Your task to perform on an android device: Open calendar and show me the second week of next month Image 0: 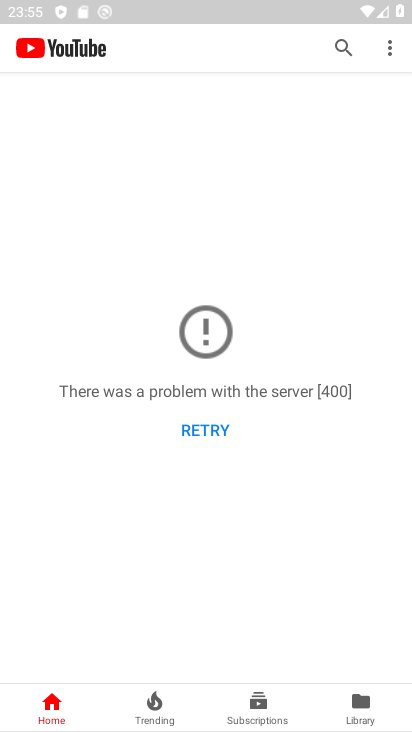
Step 0: press home button
Your task to perform on an android device: Open calendar and show me the second week of next month Image 1: 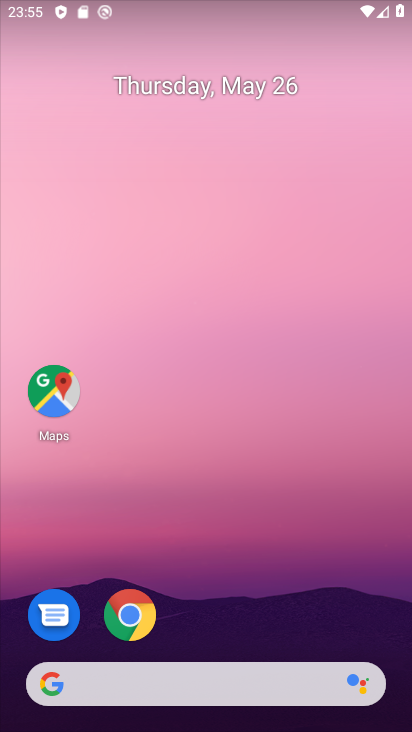
Step 1: drag from (324, 633) to (316, 190)
Your task to perform on an android device: Open calendar and show me the second week of next month Image 2: 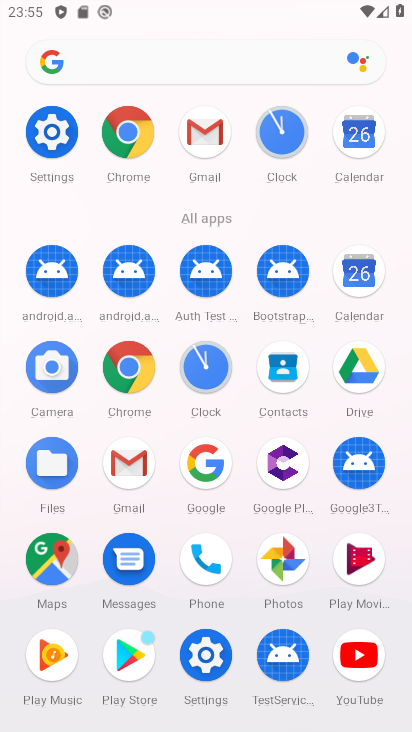
Step 2: click (364, 282)
Your task to perform on an android device: Open calendar and show me the second week of next month Image 3: 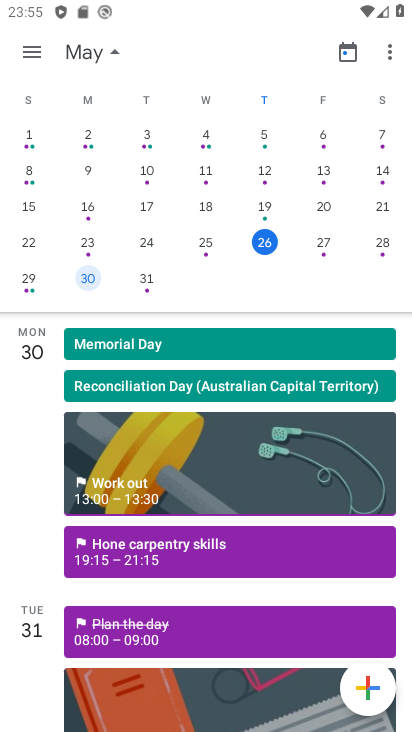
Step 3: drag from (374, 116) to (0, 116)
Your task to perform on an android device: Open calendar and show me the second week of next month Image 4: 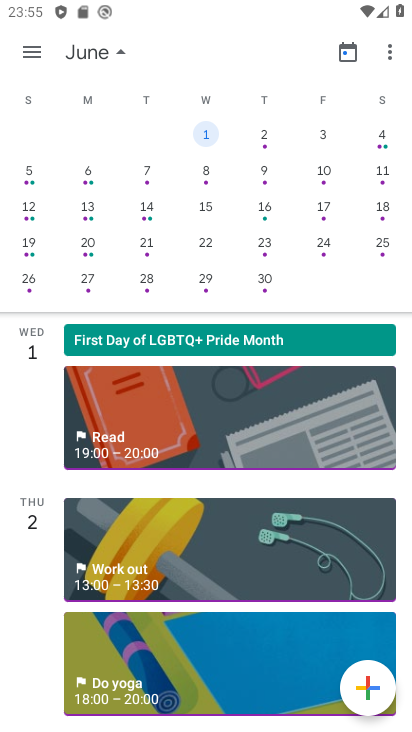
Step 4: click (142, 176)
Your task to perform on an android device: Open calendar and show me the second week of next month Image 5: 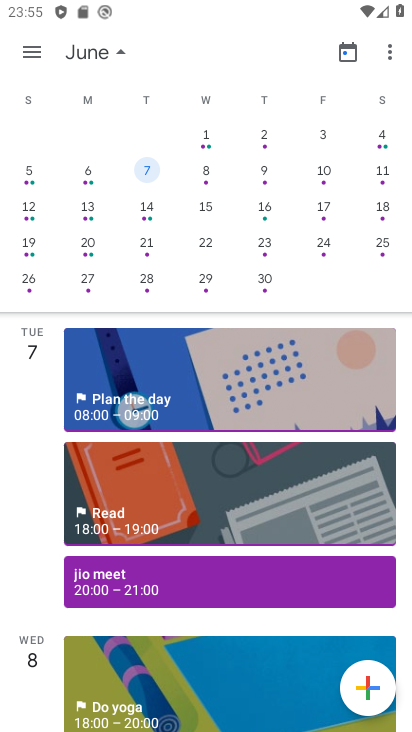
Step 5: task complete